Your task to perform on an android device: change the clock display to digital Image 0: 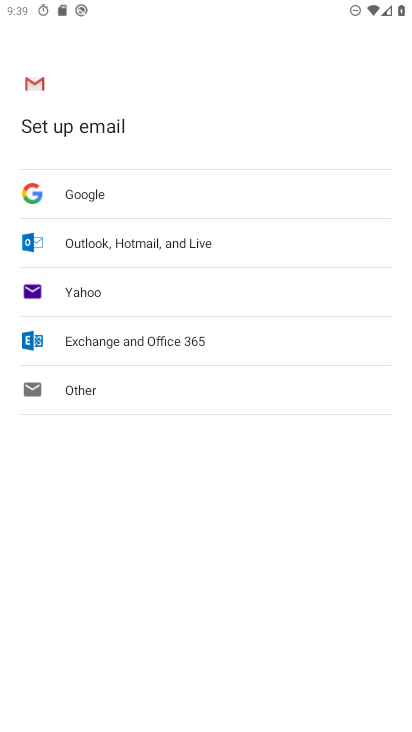
Step 0: press home button
Your task to perform on an android device: change the clock display to digital Image 1: 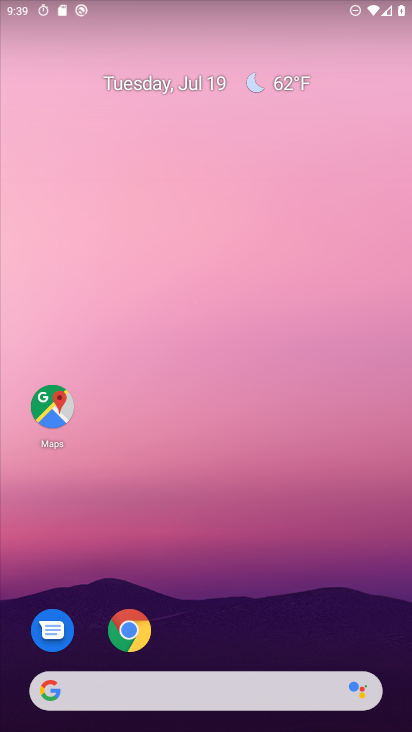
Step 1: drag from (193, 674) to (249, 284)
Your task to perform on an android device: change the clock display to digital Image 2: 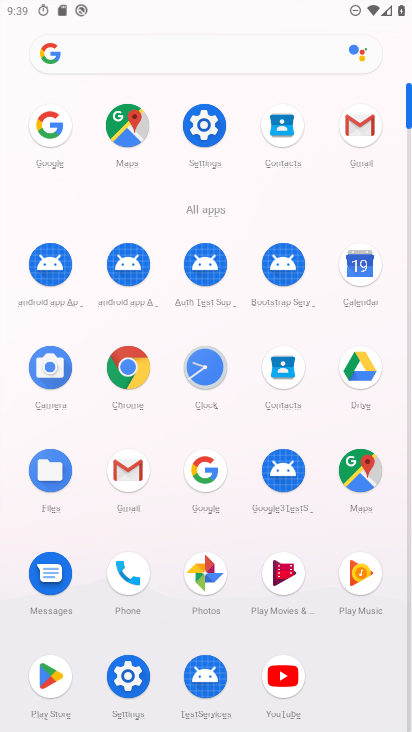
Step 2: click (209, 375)
Your task to perform on an android device: change the clock display to digital Image 3: 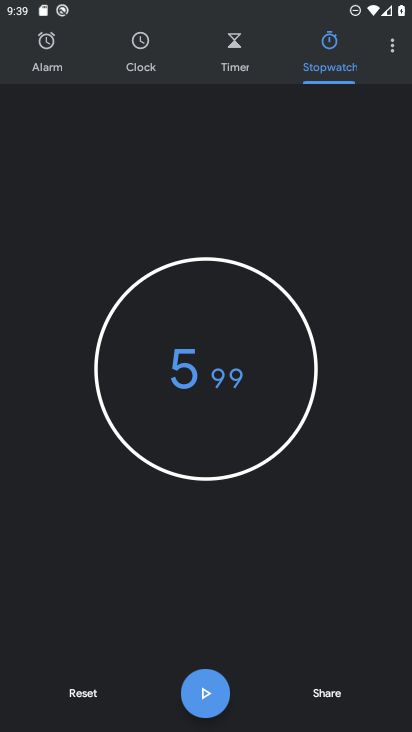
Step 3: click (394, 45)
Your task to perform on an android device: change the clock display to digital Image 4: 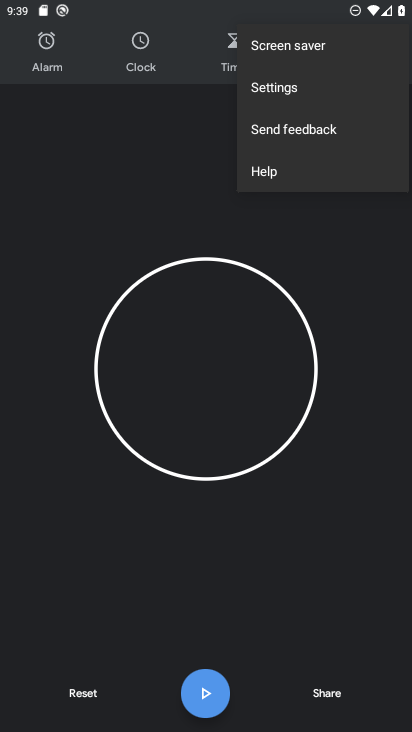
Step 4: click (299, 89)
Your task to perform on an android device: change the clock display to digital Image 5: 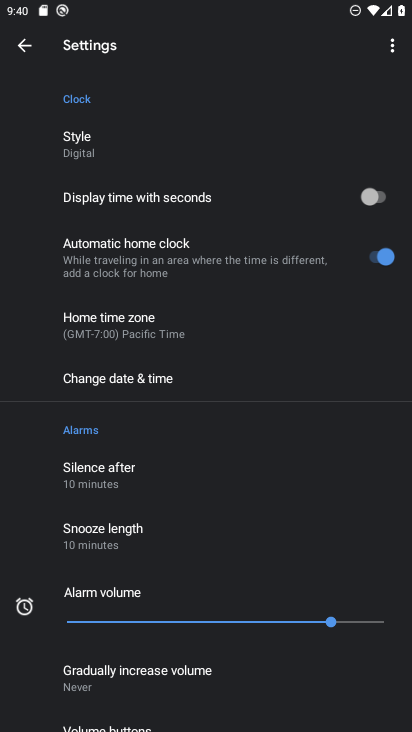
Step 5: task complete